Your task to perform on an android device: Go to Reddit.com Image 0: 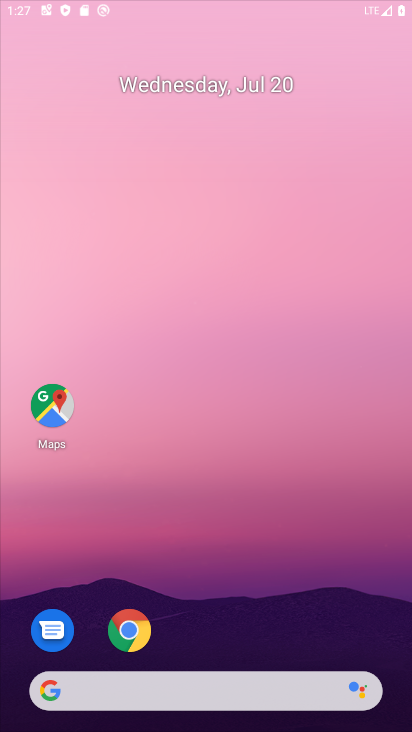
Step 0: click (358, 52)
Your task to perform on an android device: Go to Reddit.com Image 1: 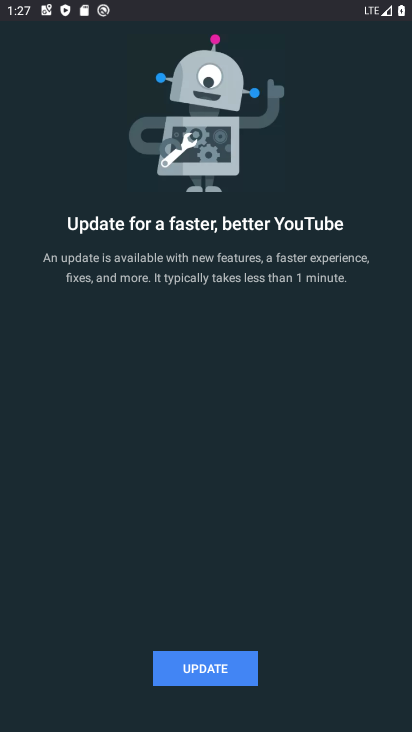
Step 1: press home button
Your task to perform on an android device: Go to Reddit.com Image 2: 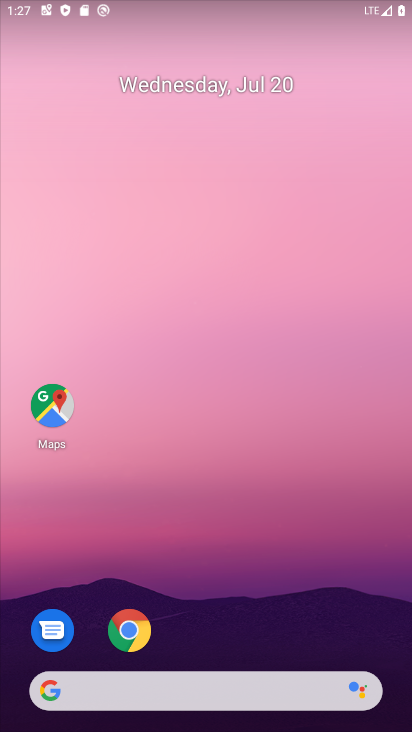
Step 2: drag from (275, 631) to (234, 40)
Your task to perform on an android device: Go to Reddit.com Image 3: 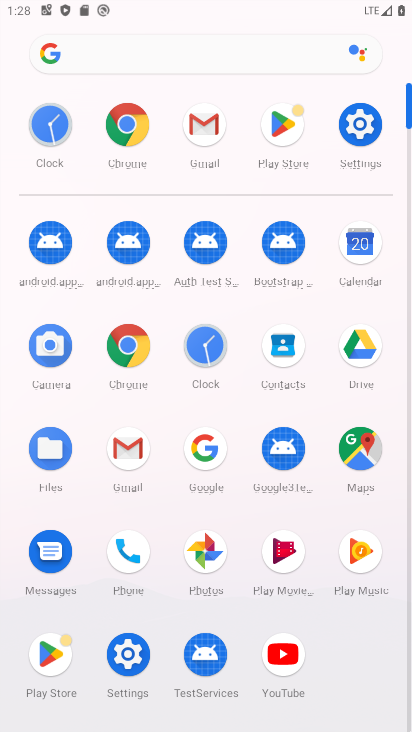
Step 3: click (130, 125)
Your task to perform on an android device: Go to Reddit.com Image 4: 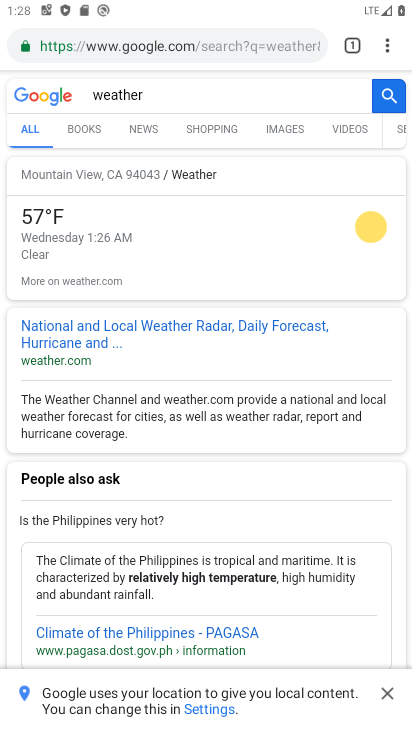
Step 4: click (160, 50)
Your task to perform on an android device: Go to Reddit.com Image 5: 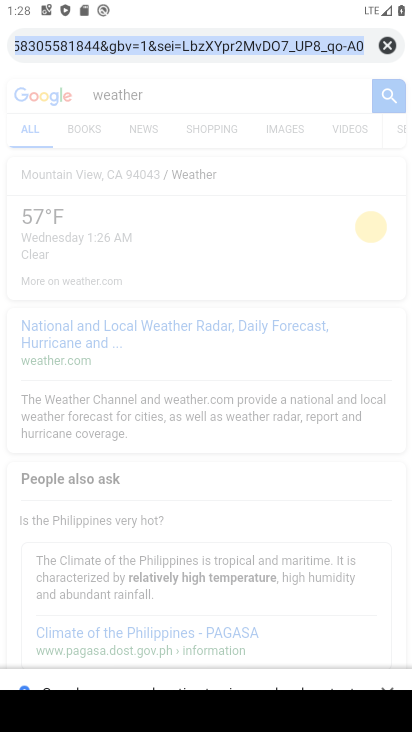
Step 5: type "reddit.com"
Your task to perform on an android device: Go to Reddit.com Image 6: 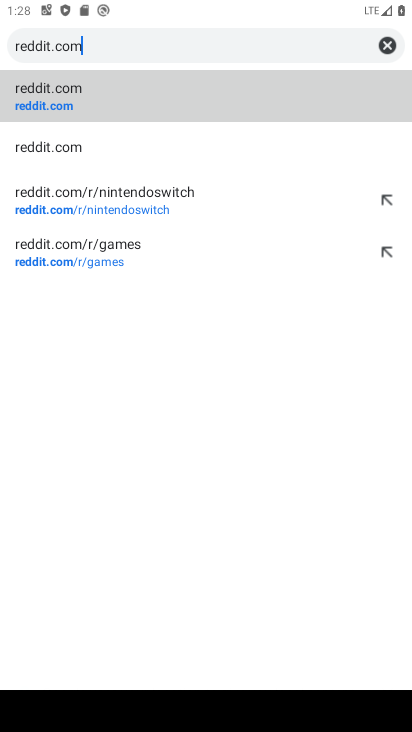
Step 6: click (37, 103)
Your task to perform on an android device: Go to Reddit.com Image 7: 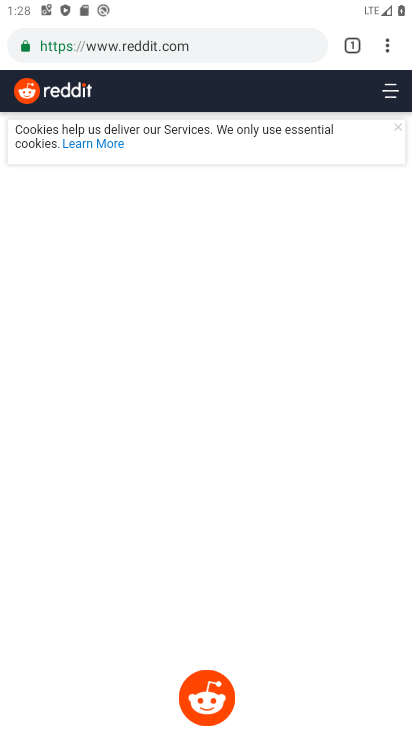
Step 7: task complete